Your task to perform on an android device: turn on improve location accuracy Image 0: 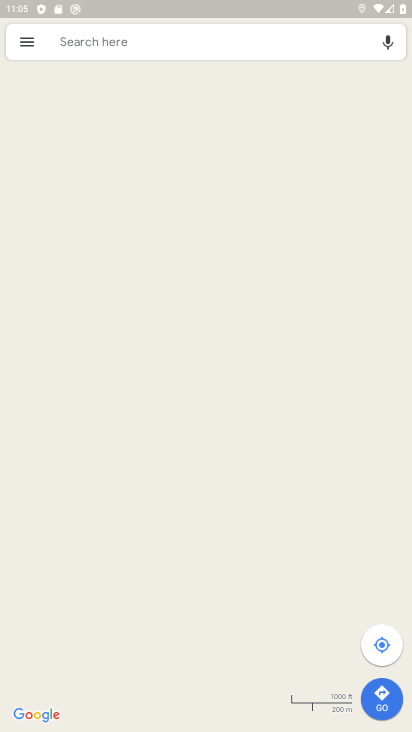
Step 0: press home button
Your task to perform on an android device: turn on improve location accuracy Image 1: 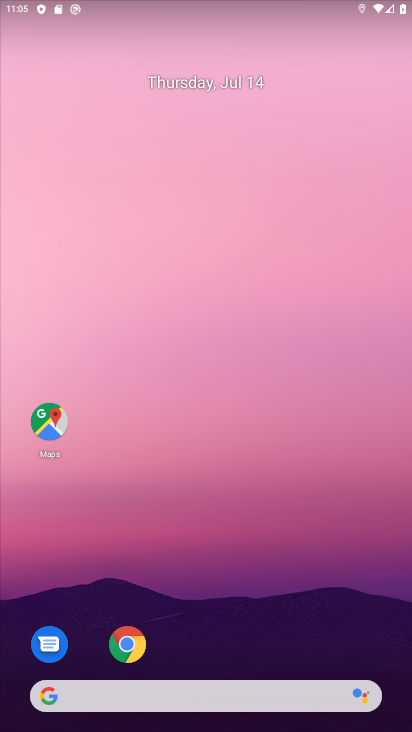
Step 1: drag from (210, 699) to (366, 0)
Your task to perform on an android device: turn on improve location accuracy Image 2: 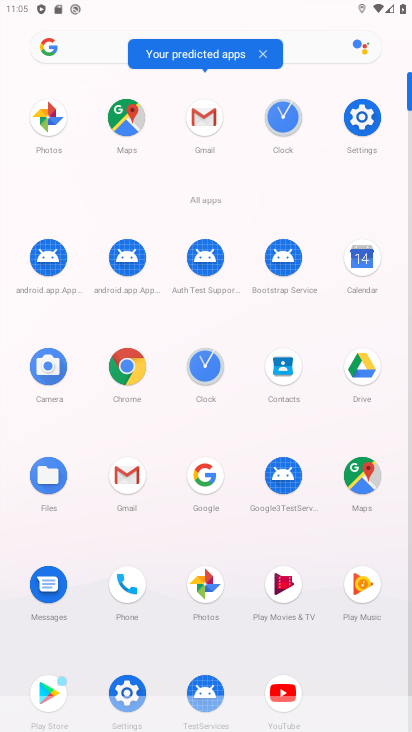
Step 2: click (138, 679)
Your task to perform on an android device: turn on improve location accuracy Image 3: 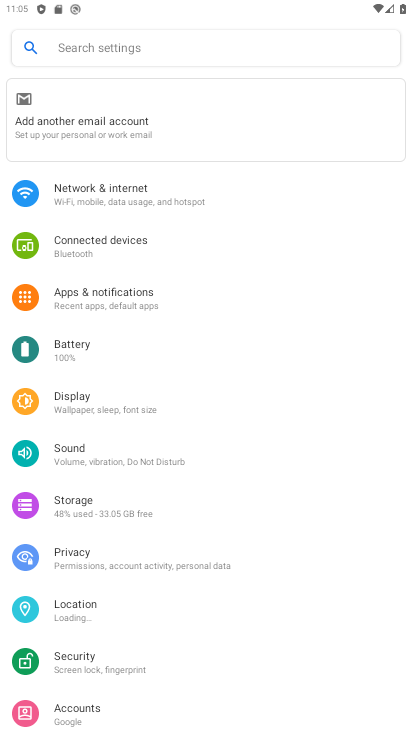
Step 3: click (96, 615)
Your task to perform on an android device: turn on improve location accuracy Image 4: 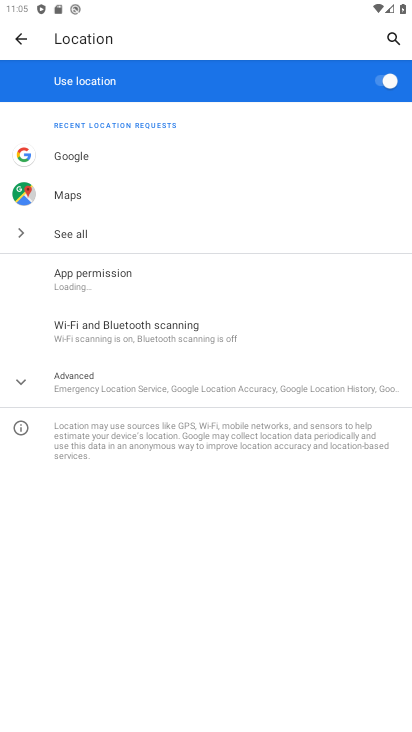
Step 4: click (158, 396)
Your task to perform on an android device: turn on improve location accuracy Image 5: 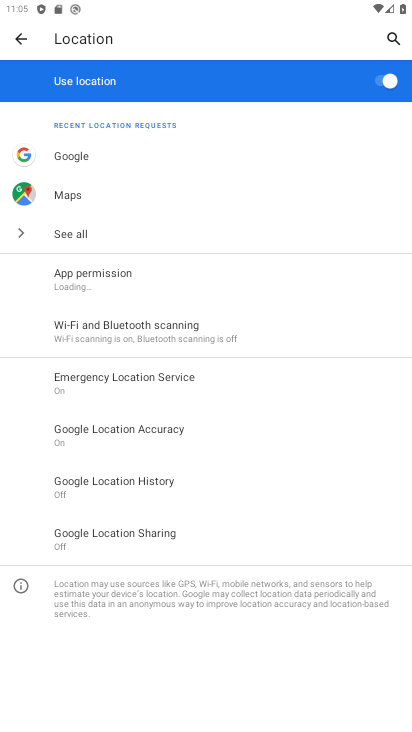
Step 5: click (190, 429)
Your task to perform on an android device: turn on improve location accuracy Image 6: 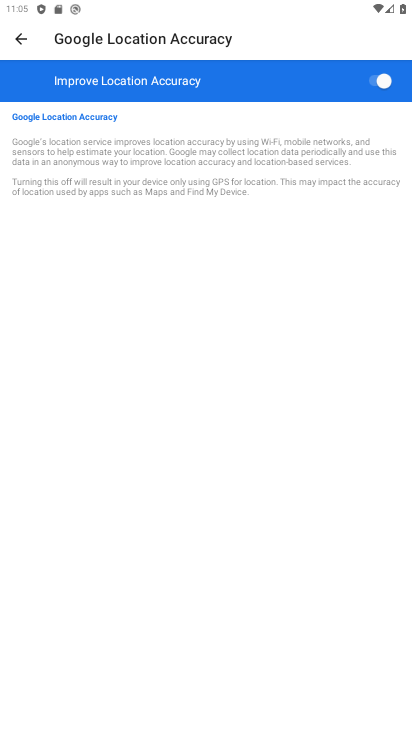
Step 6: task complete